Your task to perform on an android device: Search for pizza restaurants on Maps Image 0: 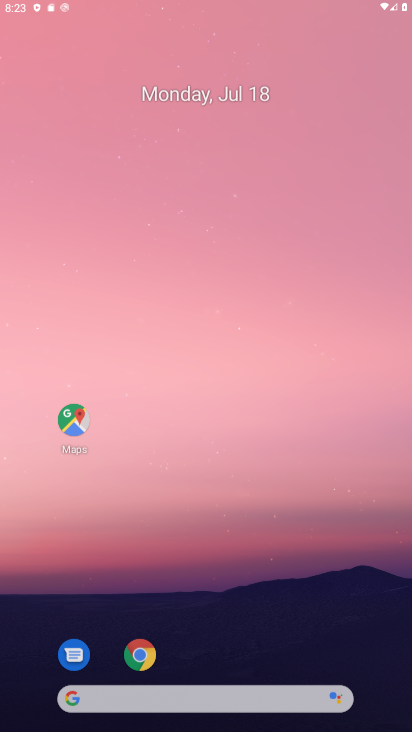
Step 0: click (178, 160)
Your task to perform on an android device: Search for pizza restaurants on Maps Image 1: 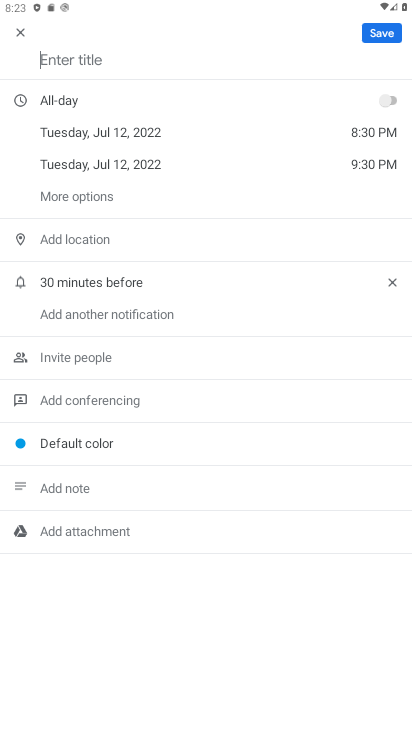
Step 1: click (17, 24)
Your task to perform on an android device: Search for pizza restaurants on Maps Image 2: 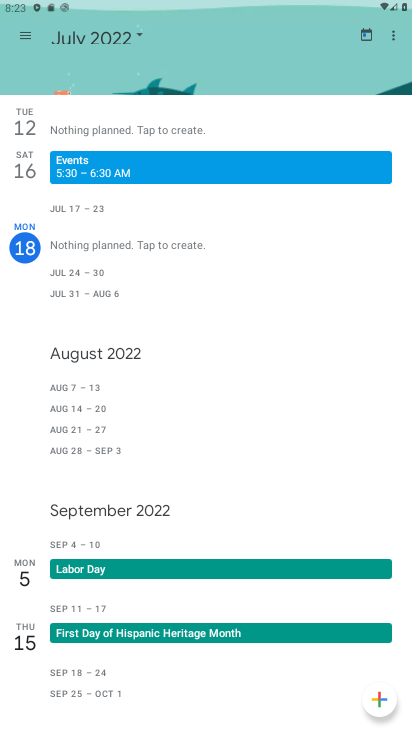
Step 2: press back button
Your task to perform on an android device: Search for pizza restaurants on Maps Image 3: 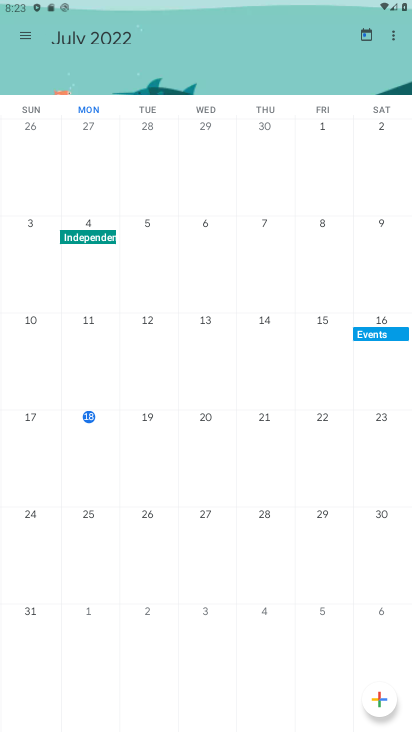
Step 3: press home button
Your task to perform on an android device: Search for pizza restaurants on Maps Image 4: 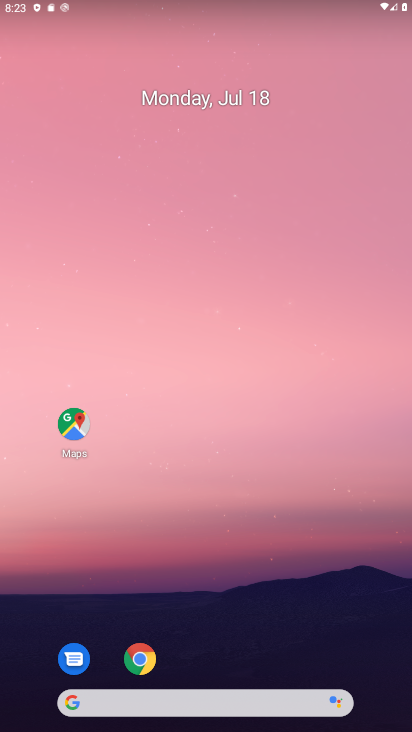
Step 4: drag from (248, 670) to (210, 176)
Your task to perform on an android device: Search for pizza restaurants on Maps Image 5: 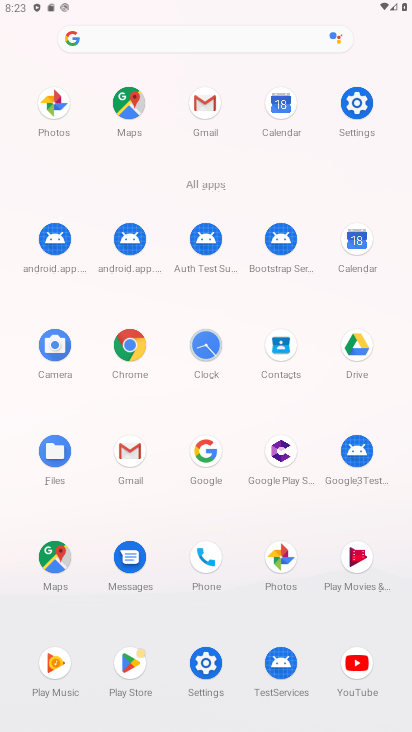
Step 5: click (126, 101)
Your task to perform on an android device: Search for pizza restaurants on Maps Image 6: 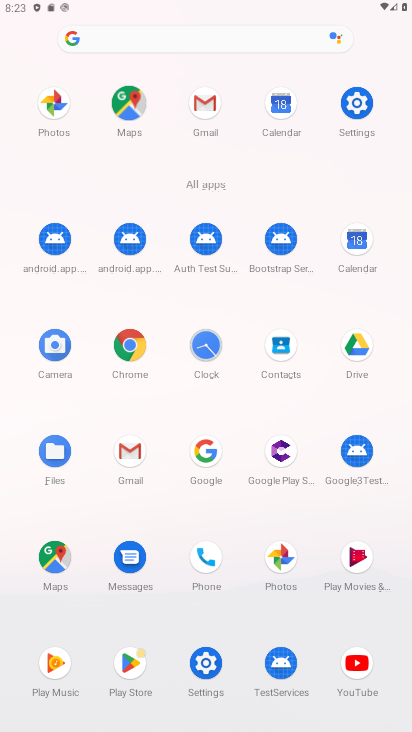
Step 6: click (127, 99)
Your task to perform on an android device: Search for pizza restaurants on Maps Image 7: 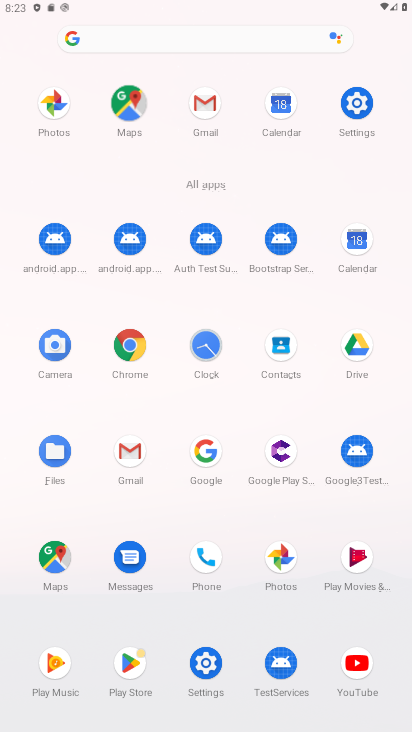
Step 7: click (127, 99)
Your task to perform on an android device: Search for pizza restaurants on Maps Image 8: 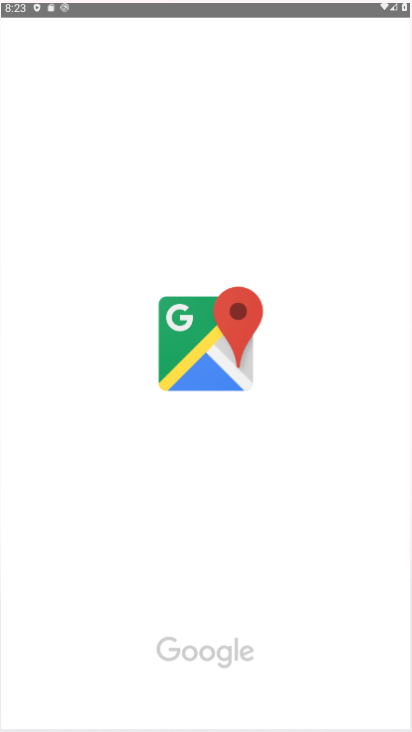
Step 8: click (127, 99)
Your task to perform on an android device: Search for pizza restaurants on Maps Image 9: 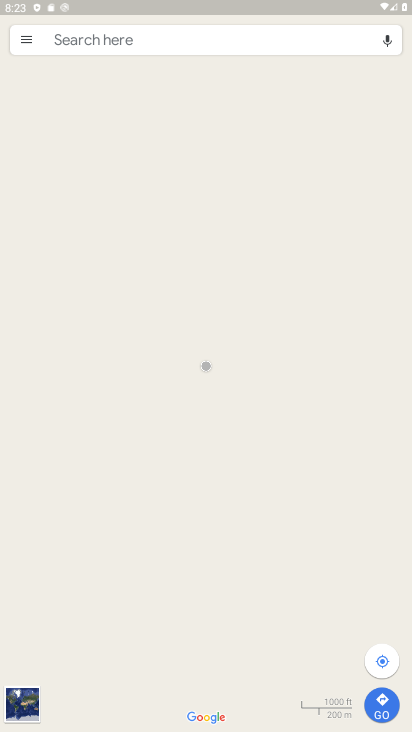
Step 9: click (61, 34)
Your task to perform on an android device: Search for pizza restaurants on Maps Image 10: 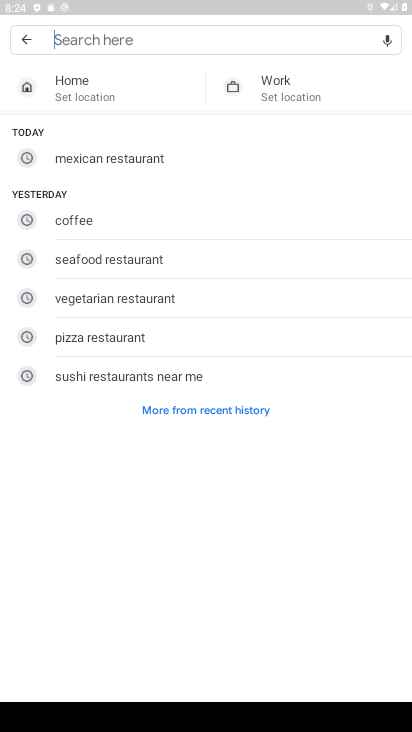
Step 10: click (131, 341)
Your task to perform on an android device: Search for pizza restaurants on Maps Image 11: 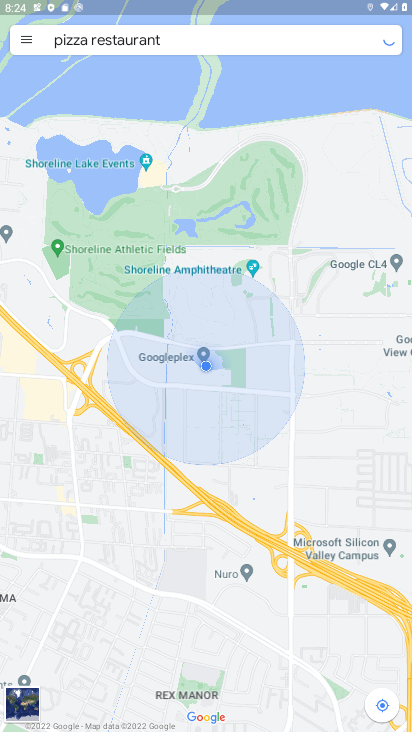
Step 11: task complete